Your task to perform on an android device: turn on bluetooth scan Image 0: 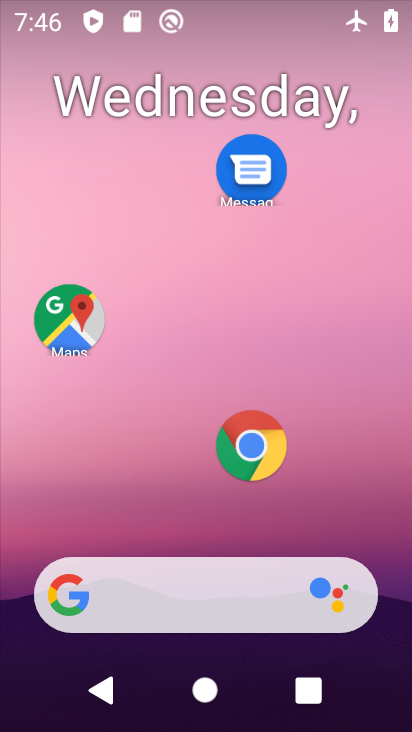
Step 0: press back button
Your task to perform on an android device: turn on bluetooth scan Image 1: 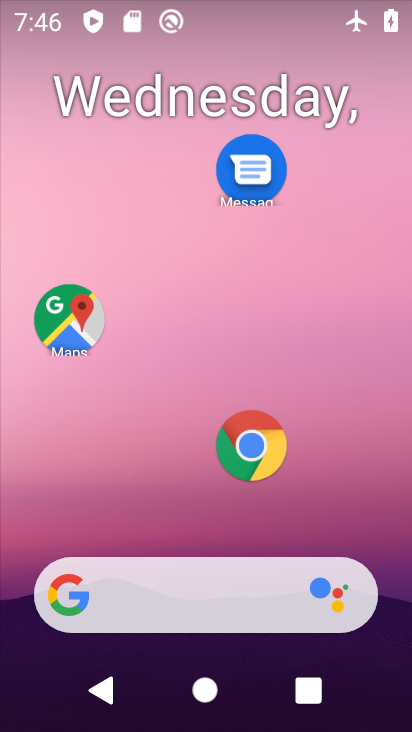
Step 1: click (179, 257)
Your task to perform on an android device: turn on bluetooth scan Image 2: 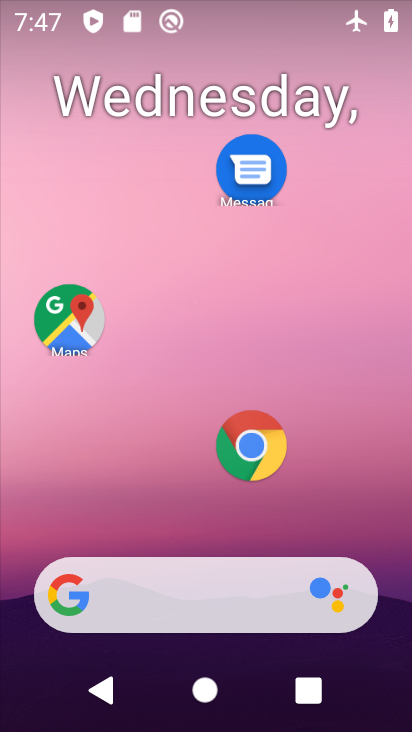
Step 2: drag from (267, 671) to (233, 408)
Your task to perform on an android device: turn on bluetooth scan Image 3: 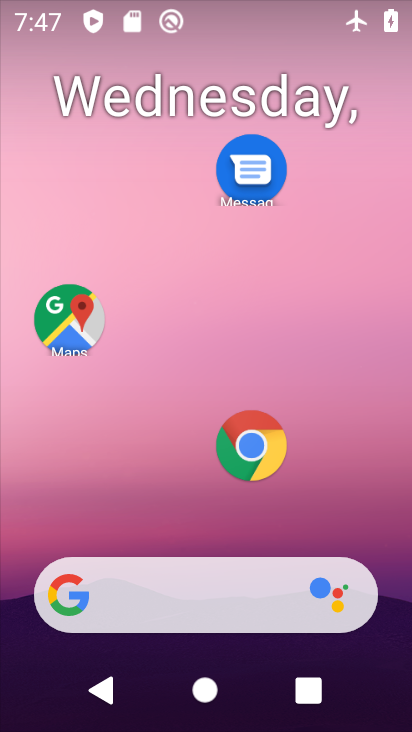
Step 3: drag from (260, 663) to (223, 249)
Your task to perform on an android device: turn on bluetooth scan Image 4: 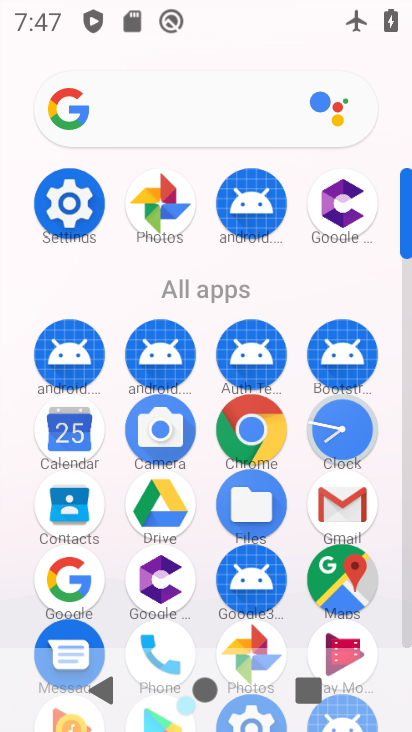
Step 4: click (61, 198)
Your task to perform on an android device: turn on bluetooth scan Image 5: 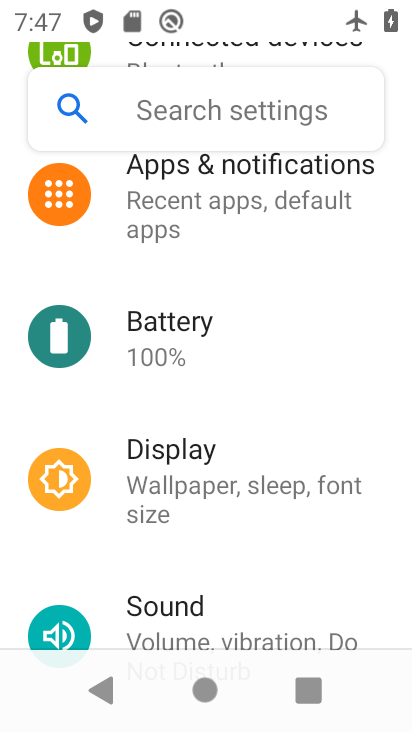
Step 5: drag from (242, 541) to (205, 170)
Your task to perform on an android device: turn on bluetooth scan Image 6: 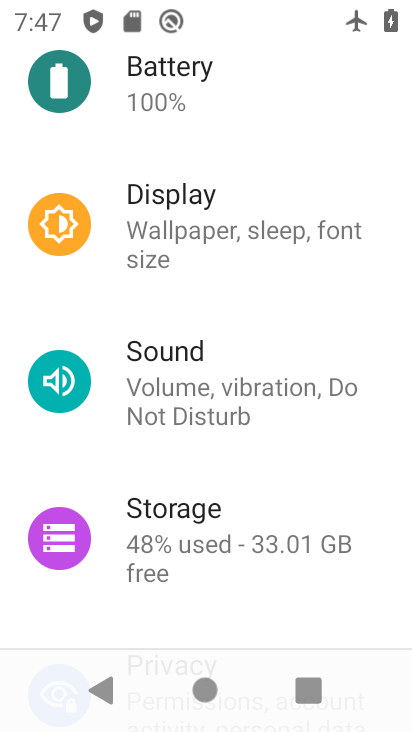
Step 6: drag from (219, 453) to (192, 16)
Your task to perform on an android device: turn on bluetooth scan Image 7: 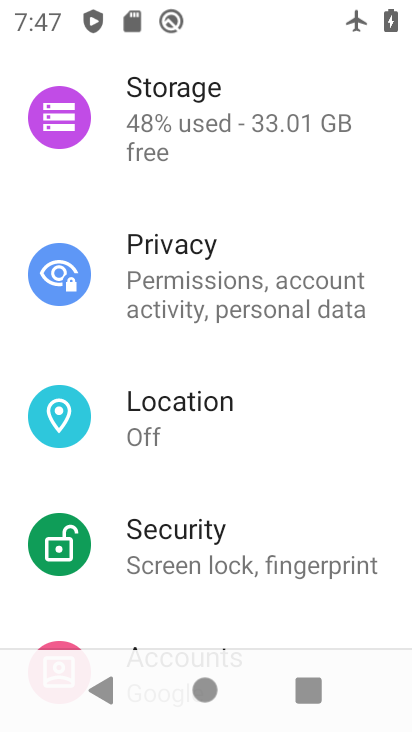
Step 7: drag from (211, 559) to (256, 107)
Your task to perform on an android device: turn on bluetooth scan Image 8: 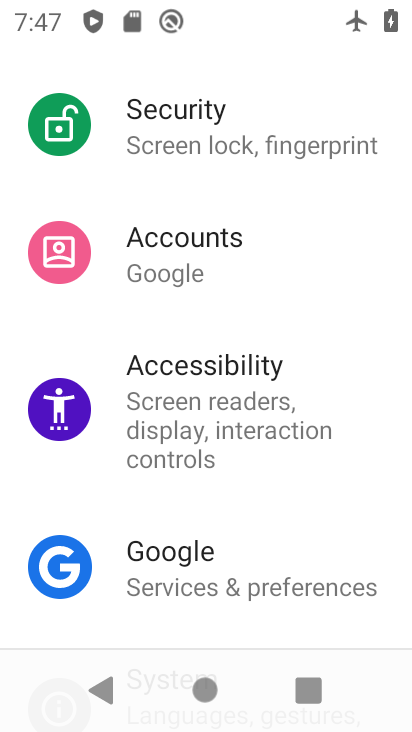
Step 8: drag from (253, 470) to (217, 147)
Your task to perform on an android device: turn on bluetooth scan Image 9: 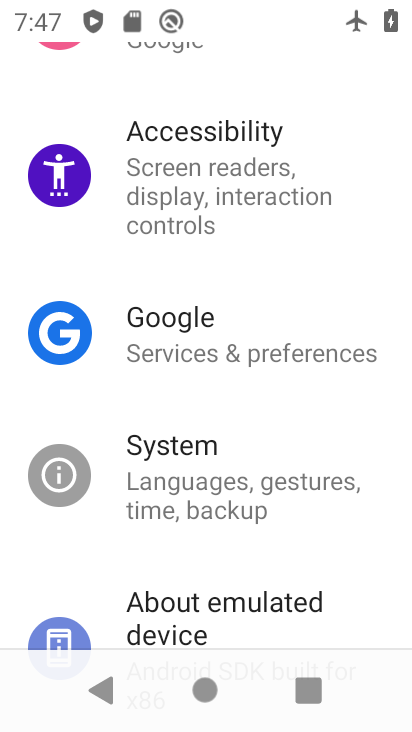
Step 9: drag from (249, 459) to (198, 70)
Your task to perform on an android device: turn on bluetooth scan Image 10: 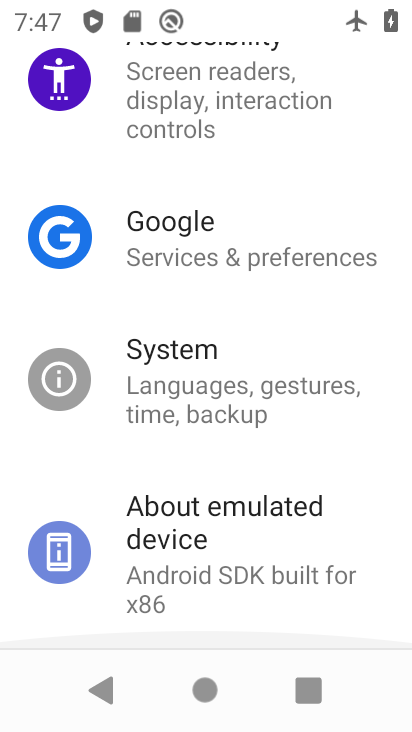
Step 10: drag from (193, 562) to (179, 111)
Your task to perform on an android device: turn on bluetooth scan Image 11: 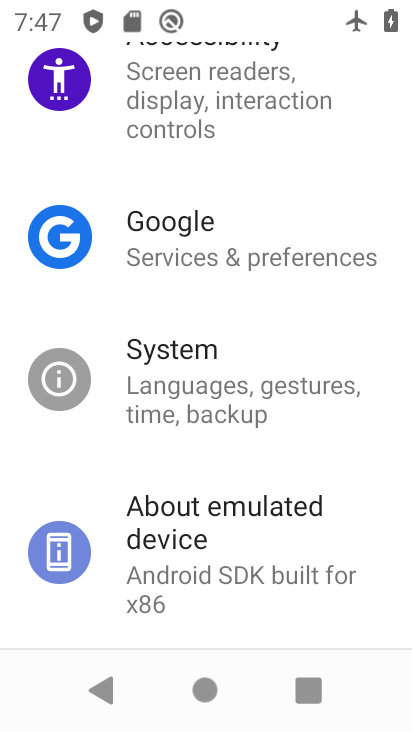
Step 11: drag from (180, 308) to (224, 558)
Your task to perform on an android device: turn on bluetooth scan Image 12: 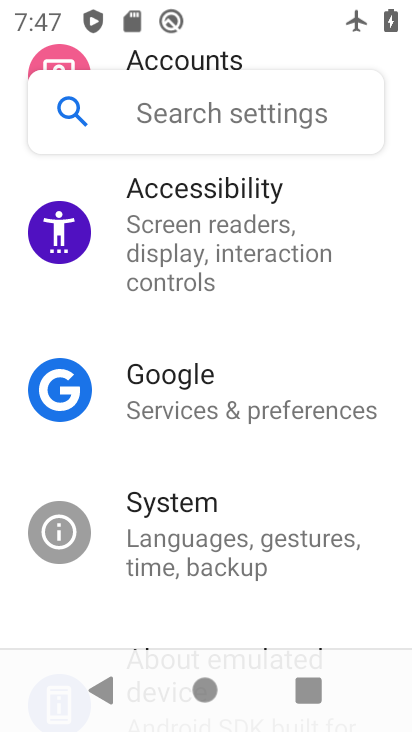
Step 12: drag from (251, 246) to (282, 486)
Your task to perform on an android device: turn on bluetooth scan Image 13: 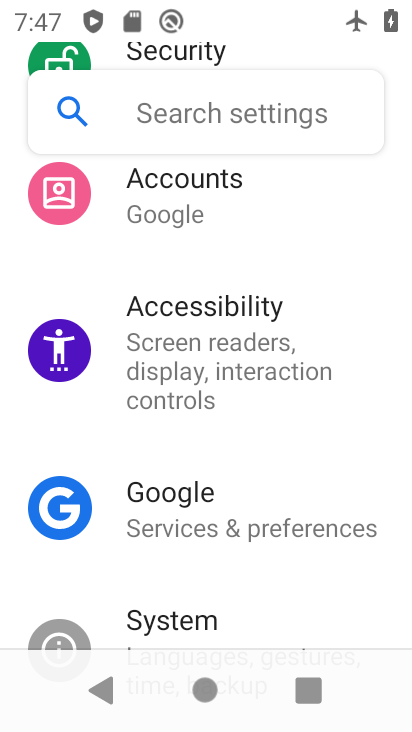
Step 13: drag from (222, 270) to (222, 520)
Your task to perform on an android device: turn on bluetooth scan Image 14: 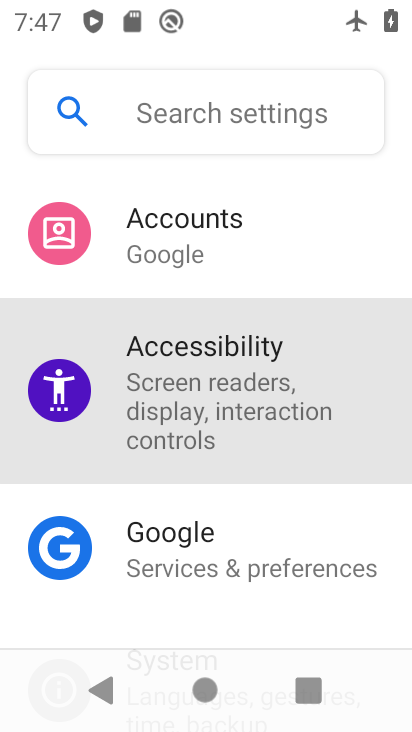
Step 14: drag from (203, 263) to (203, 478)
Your task to perform on an android device: turn on bluetooth scan Image 15: 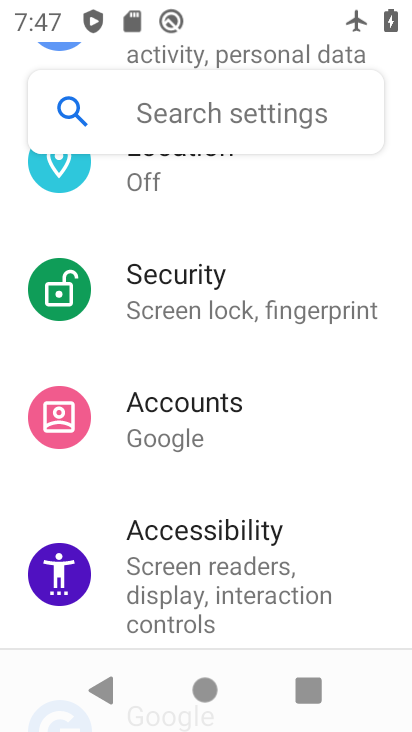
Step 15: drag from (160, 373) to (150, 538)
Your task to perform on an android device: turn on bluetooth scan Image 16: 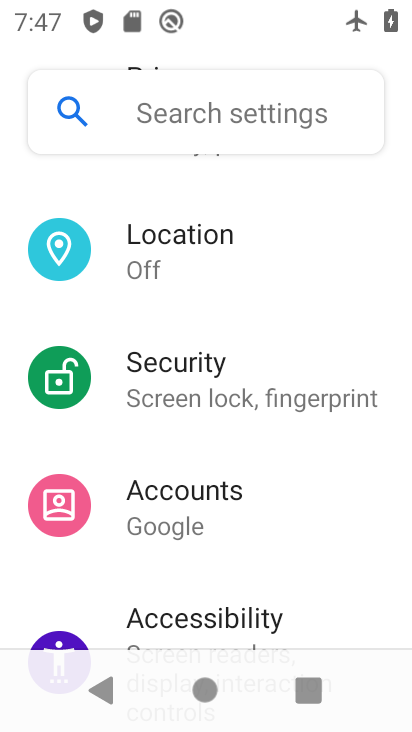
Step 16: drag from (170, 305) to (171, 547)
Your task to perform on an android device: turn on bluetooth scan Image 17: 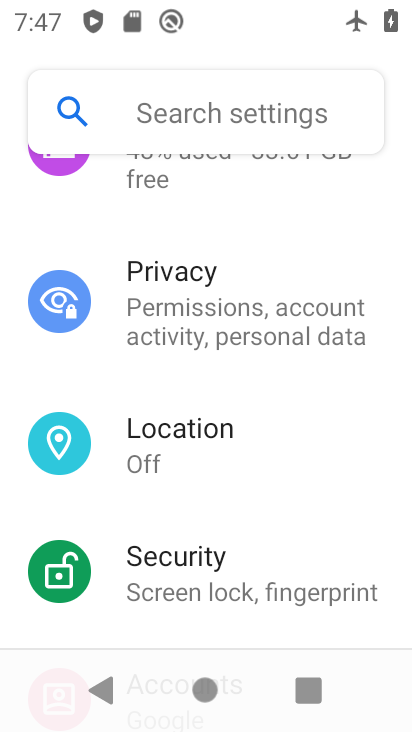
Step 17: click (136, 449)
Your task to perform on an android device: turn on bluetooth scan Image 18: 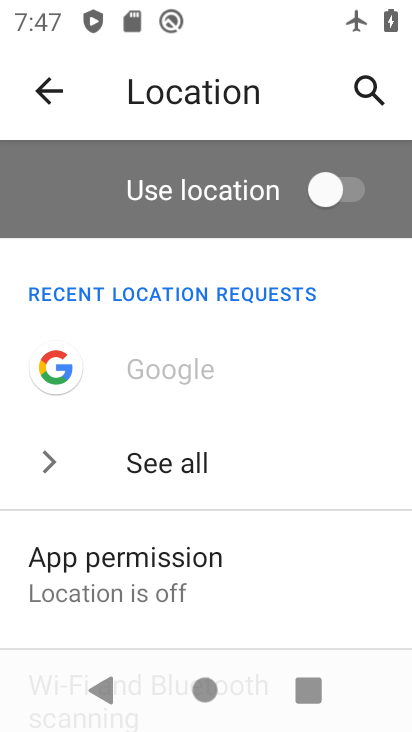
Step 18: drag from (144, 564) to (143, 104)
Your task to perform on an android device: turn on bluetooth scan Image 19: 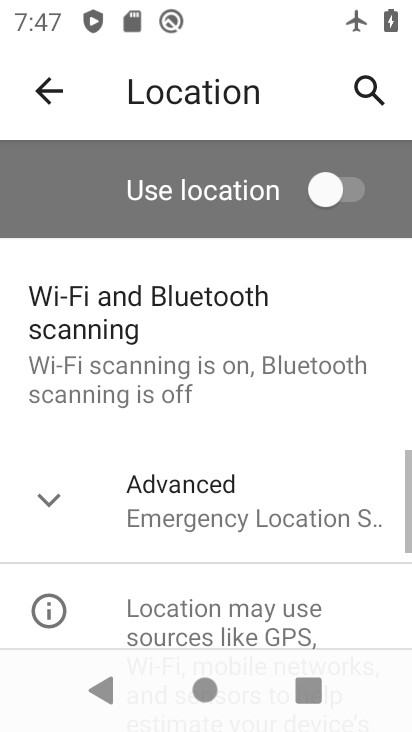
Step 19: drag from (172, 383) to (213, 68)
Your task to perform on an android device: turn on bluetooth scan Image 20: 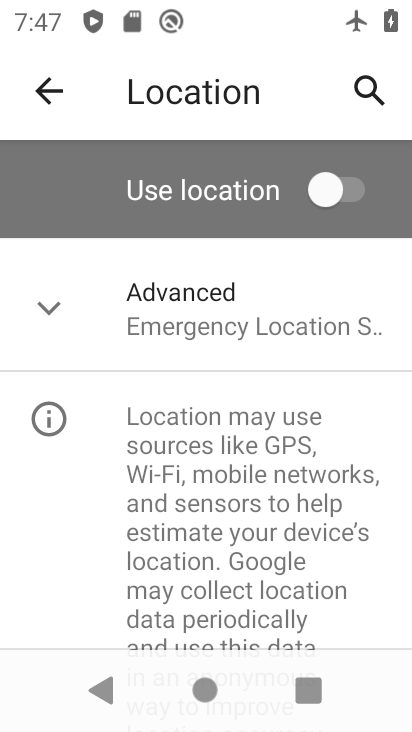
Step 20: drag from (151, 334) to (170, 628)
Your task to perform on an android device: turn on bluetooth scan Image 21: 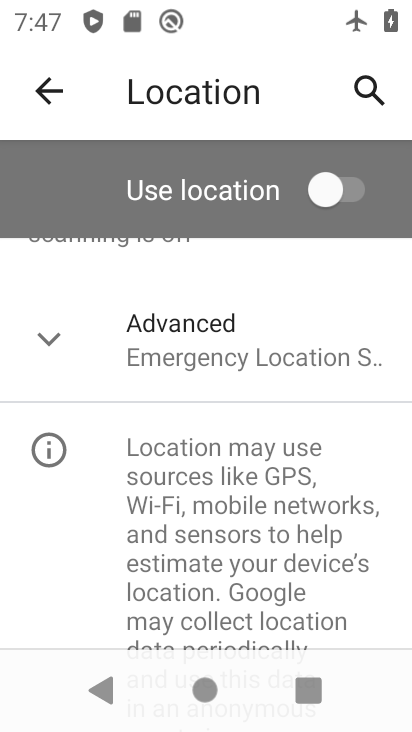
Step 21: drag from (180, 318) to (213, 594)
Your task to perform on an android device: turn on bluetooth scan Image 22: 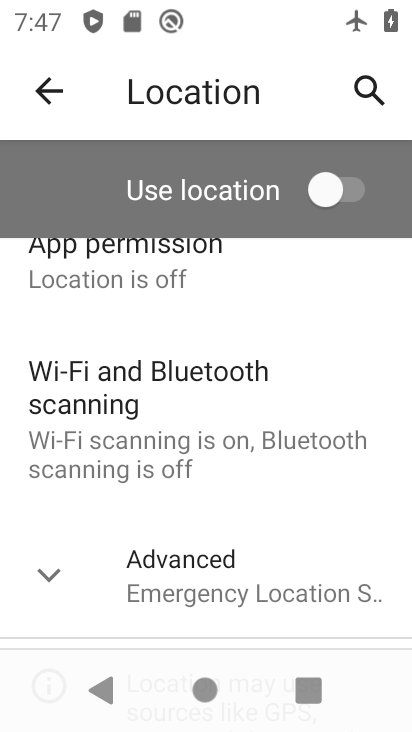
Step 22: click (128, 422)
Your task to perform on an android device: turn on bluetooth scan Image 23: 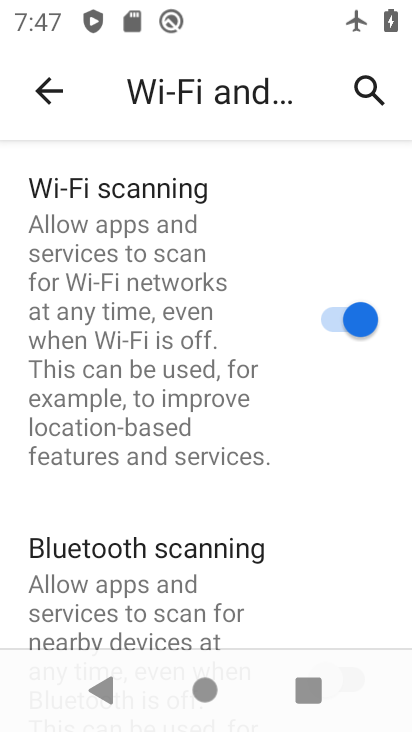
Step 23: drag from (183, 581) to (156, 251)
Your task to perform on an android device: turn on bluetooth scan Image 24: 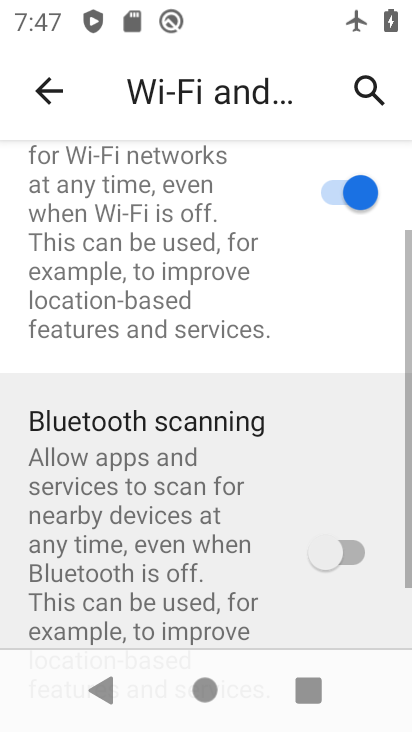
Step 24: drag from (173, 488) to (208, 281)
Your task to perform on an android device: turn on bluetooth scan Image 25: 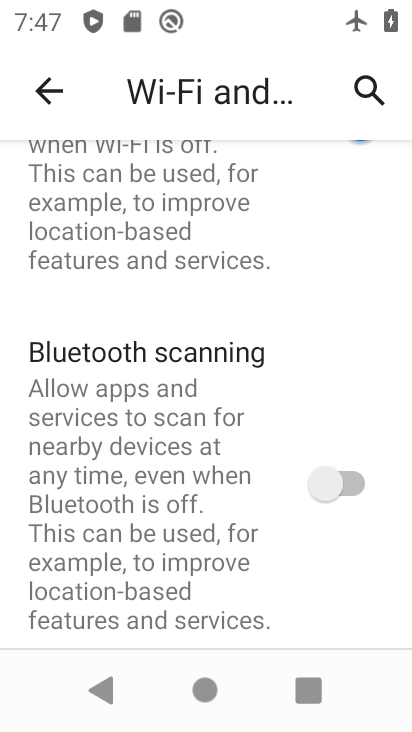
Step 25: click (320, 549)
Your task to perform on an android device: turn on bluetooth scan Image 26: 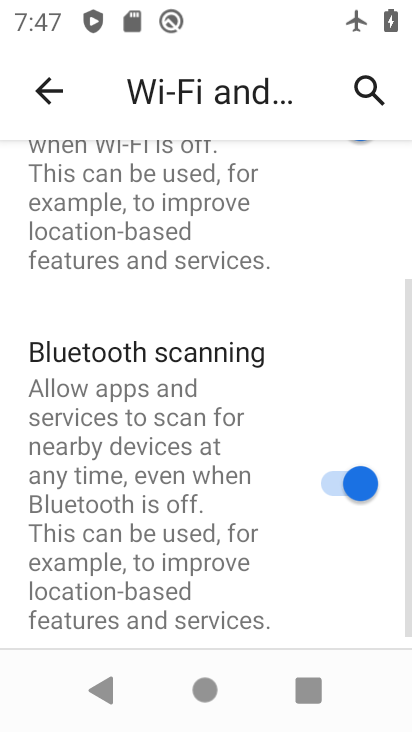
Step 26: click (312, 493)
Your task to perform on an android device: turn on bluetooth scan Image 27: 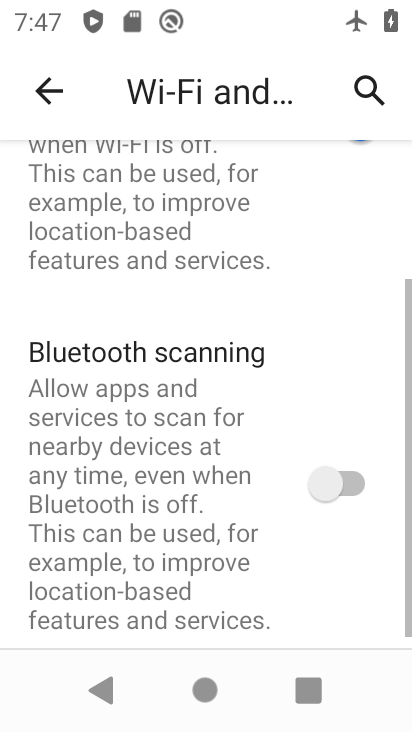
Step 27: click (325, 481)
Your task to perform on an android device: turn on bluetooth scan Image 28: 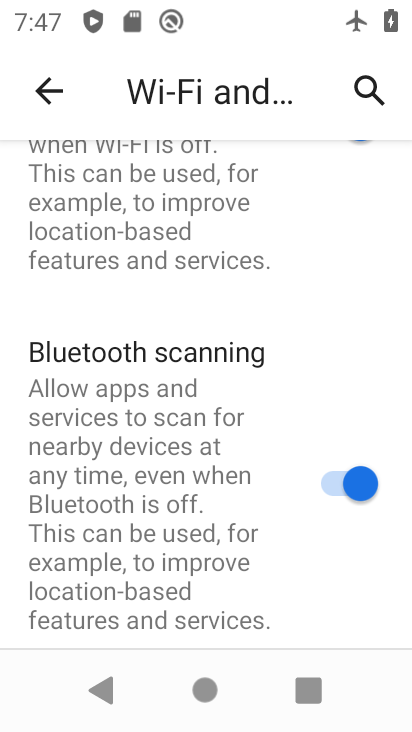
Step 28: task complete